Your task to perform on an android device: Go to privacy settings Image 0: 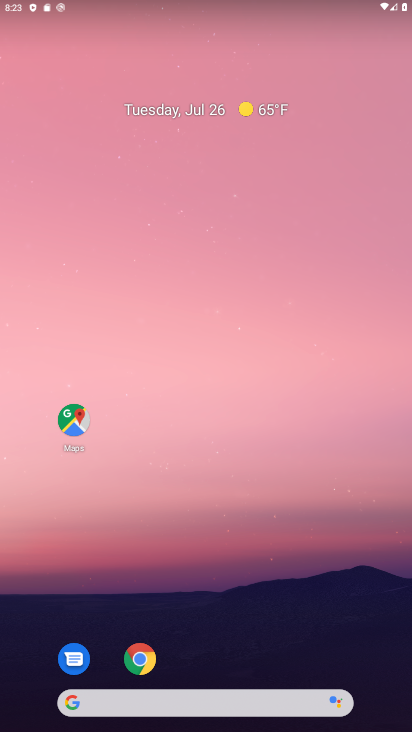
Step 0: drag from (169, 280) to (211, 124)
Your task to perform on an android device: Go to privacy settings Image 1: 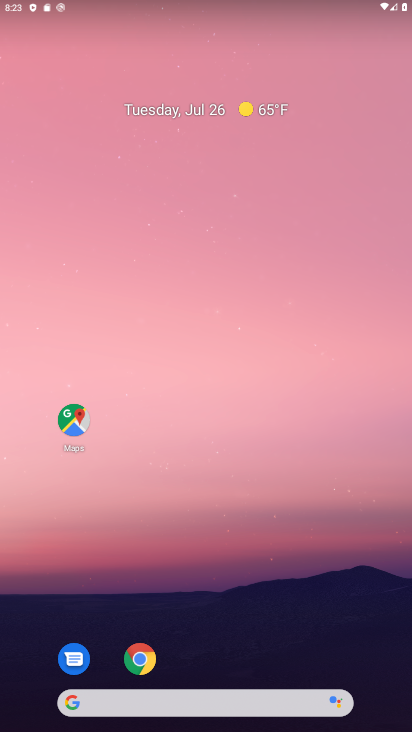
Step 1: drag from (182, 607) to (180, 59)
Your task to perform on an android device: Go to privacy settings Image 2: 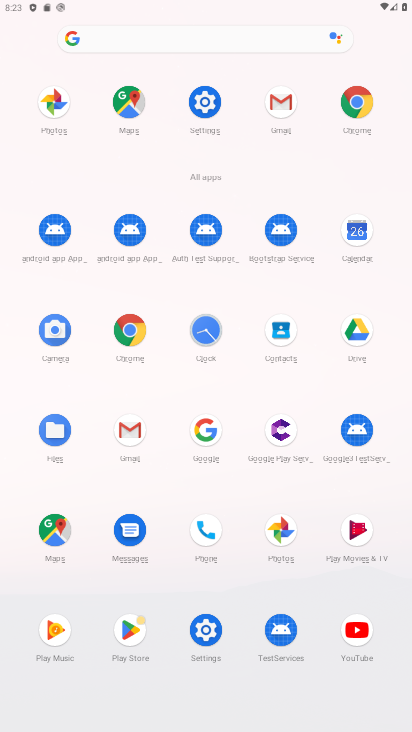
Step 2: click (203, 96)
Your task to perform on an android device: Go to privacy settings Image 3: 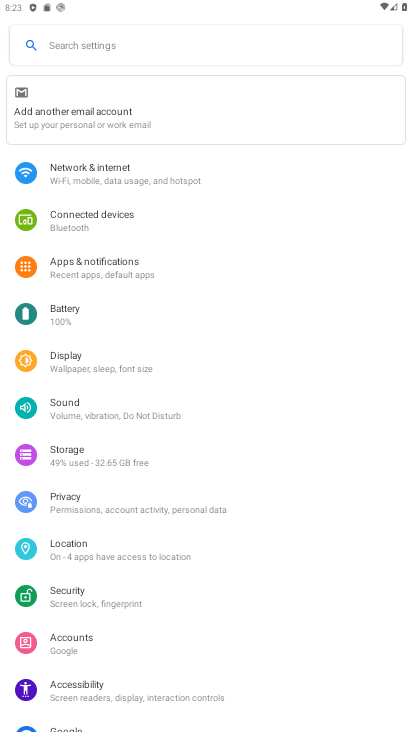
Step 3: click (81, 507)
Your task to perform on an android device: Go to privacy settings Image 4: 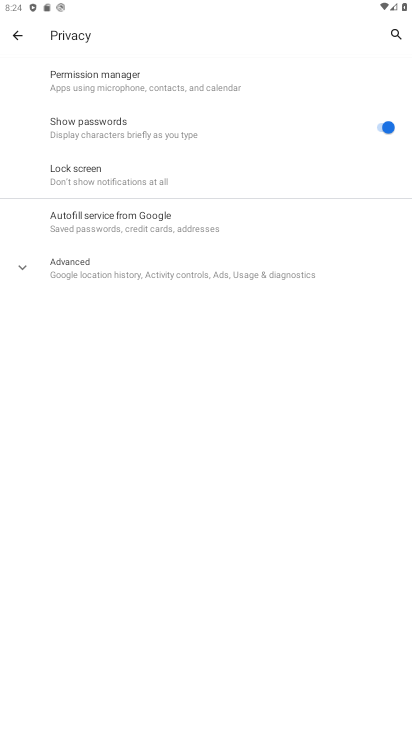
Step 4: task complete